Your task to perform on an android device: Search for vegetarian restaurants on Maps Image 0: 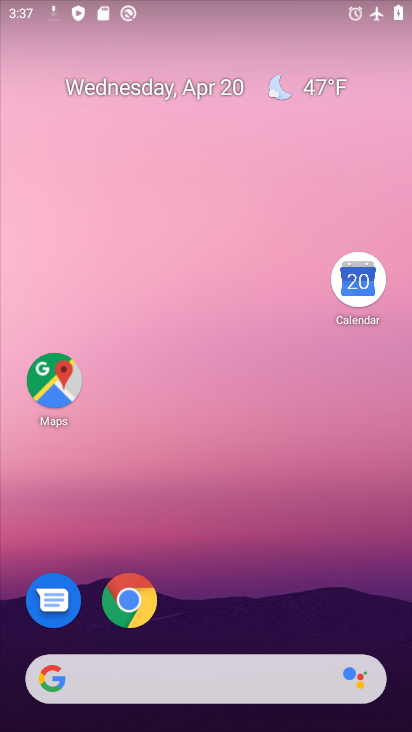
Step 0: drag from (215, 589) to (253, 325)
Your task to perform on an android device: Search for vegetarian restaurants on Maps Image 1: 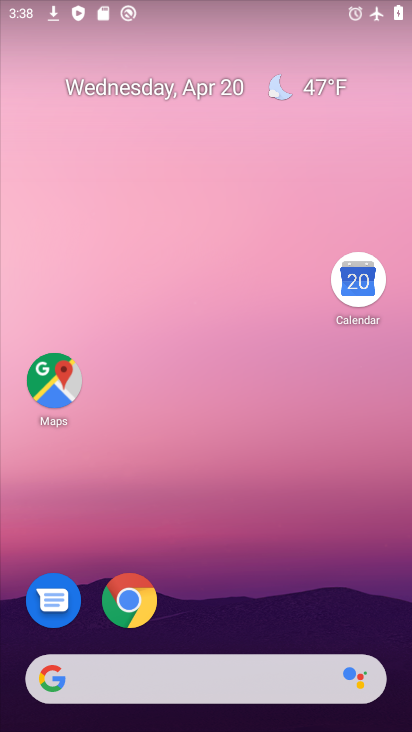
Step 1: drag from (249, 340) to (273, 260)
Your task to perform on an android device: Search for vegetarian restaurants on Maps Image 2: 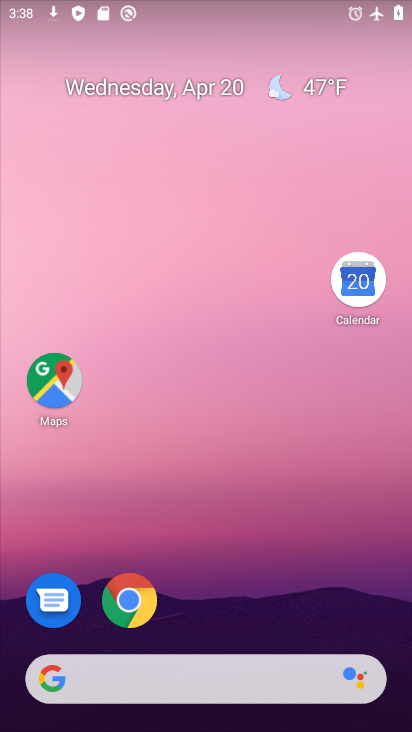
Step 2: drag from (249, 604) to (291, 143)
Your task to perform on an android device: Search for vegetarian restaurants on Maps Image 3: 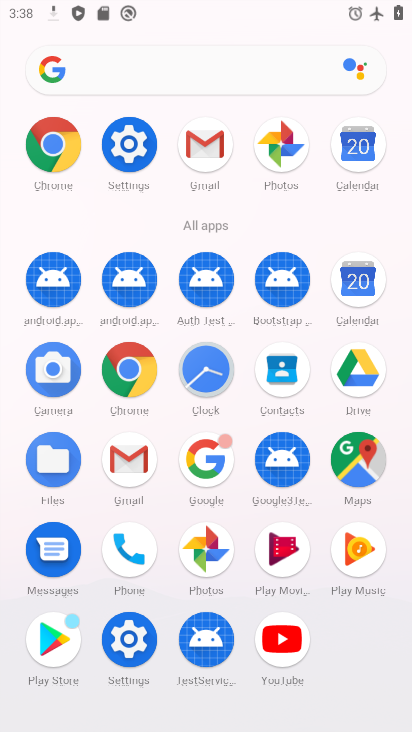
Step 3: click (346, 455)
Your task to perform on an android device: Search for vegetarian restaurants on Maps Image 4: 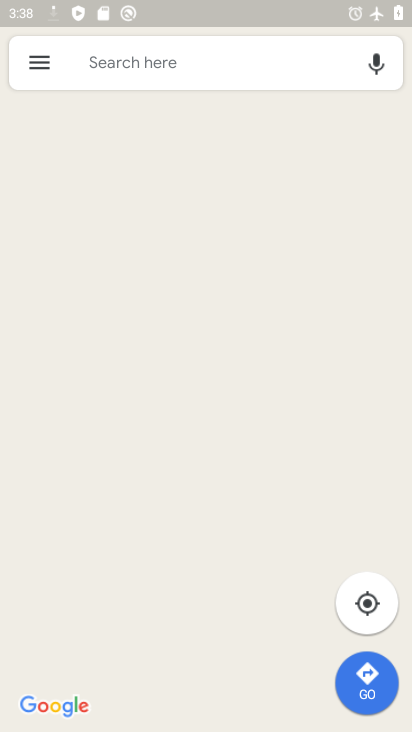
Step 4: click (207, 75)
Your task to perform on an android device: Search for vegetarian restaurants on Maps Image 5: 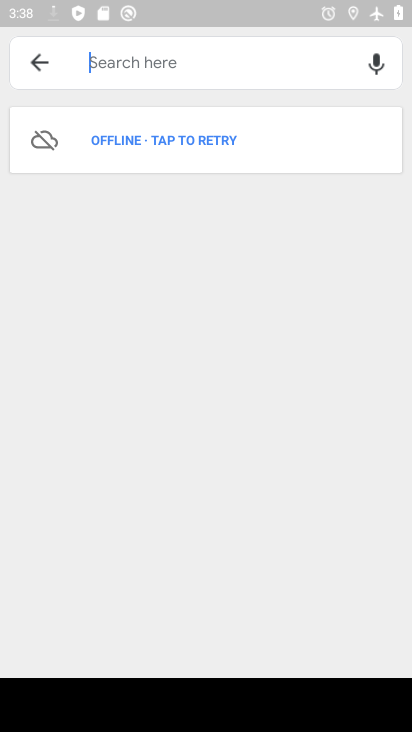
Step 5: click (178, 65)
Your task to perform on an android device: Search for vegetarian restaurants on Maps Image 6: 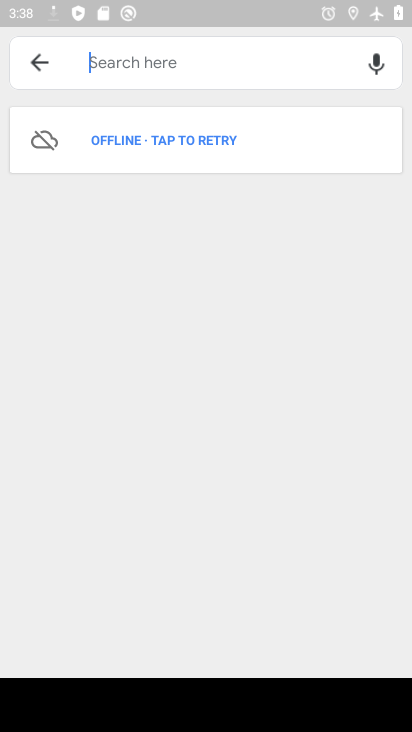
Step 6: type " vegetarian restaurants"
Your task to perform on an android device: Search for vegetarian restaurants on Maps Image 7: 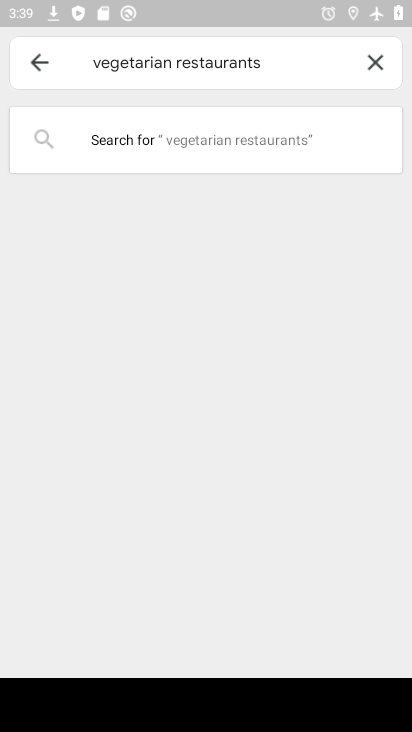
Step 7: click (250, 151)
Your task to perform on an android device: Search for vegetarian restaurants on Maps Image 8: 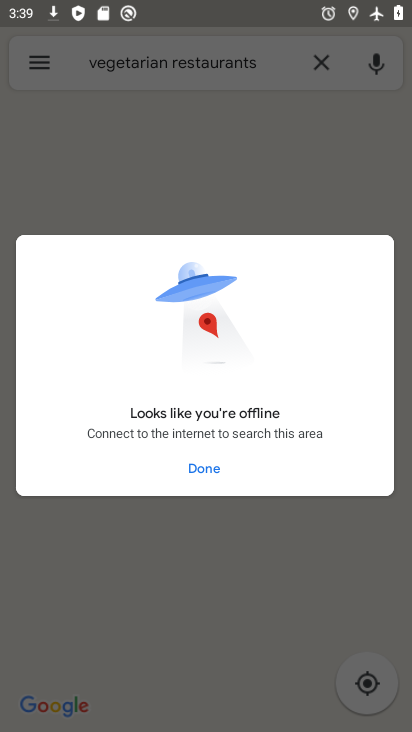
Step 8: task complete